Your task to perform on an android device: Open Google Maps and go to "Timeline" Image 0: 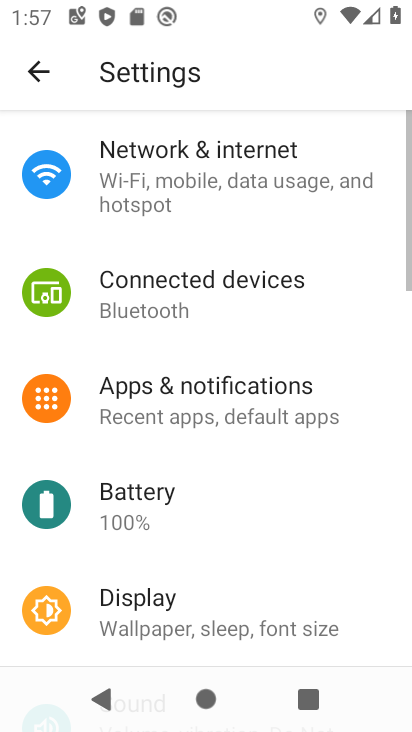
Step 0: press home button
Your task to perform on an android device: Open Google Maps and go to "Timeline" Image 1: 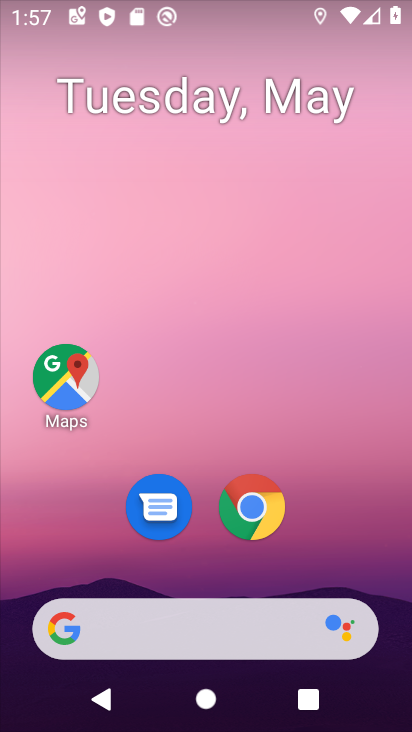
Step 1: click (62, 393)
Your task to perform on an android device: Open Google Maps and go to "Timeline" Image 2: 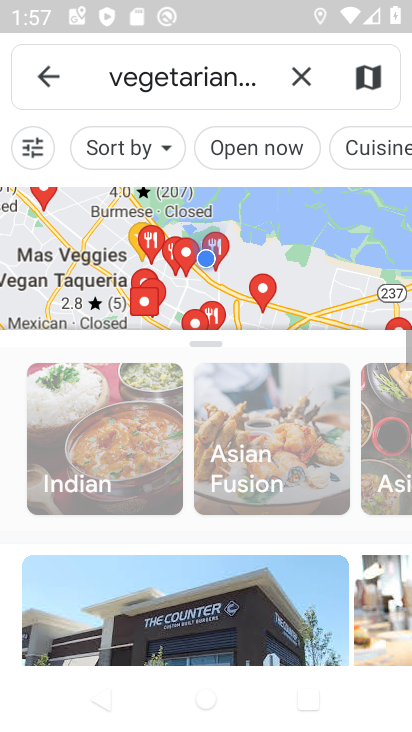
Step 2: click (46, 81)
Your task to perform on an android device: Open Google Maps and go to "Timeline" Image 3: 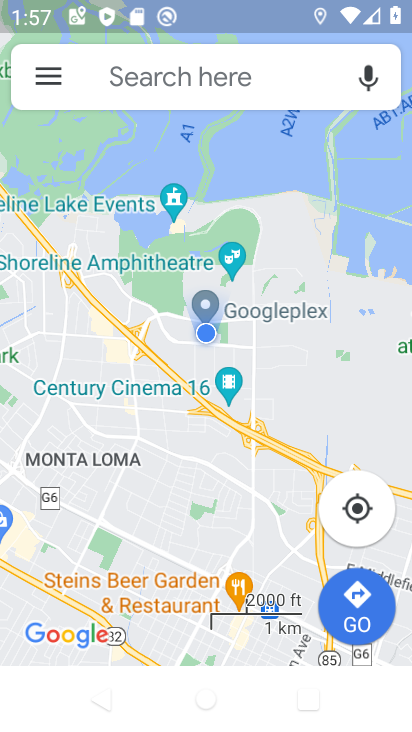
Step 3: click (46, 81)
Your task to perform on an android device: Open Google Maps and go to "Timeline" Image 4: 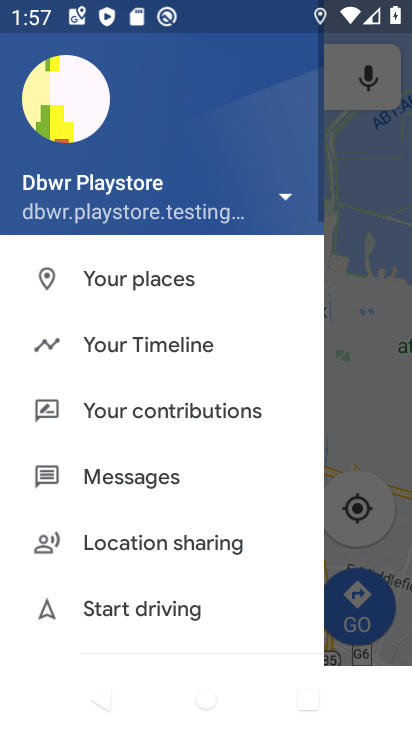
Step 4: click (102, 344)
Your task to perform on an android device: Open Google Maps and go to "Timeline" Image 5: 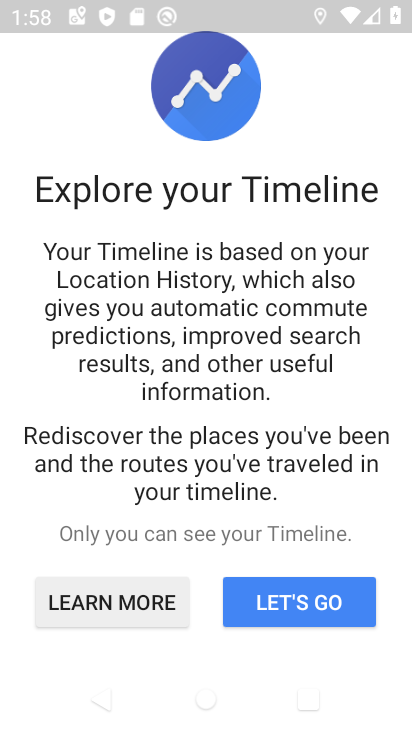
Step 5: drag from (179, 517) to (209, 292)
Your task to perform on an android device: Open Google Maps and go to "Timeline" Image 6: 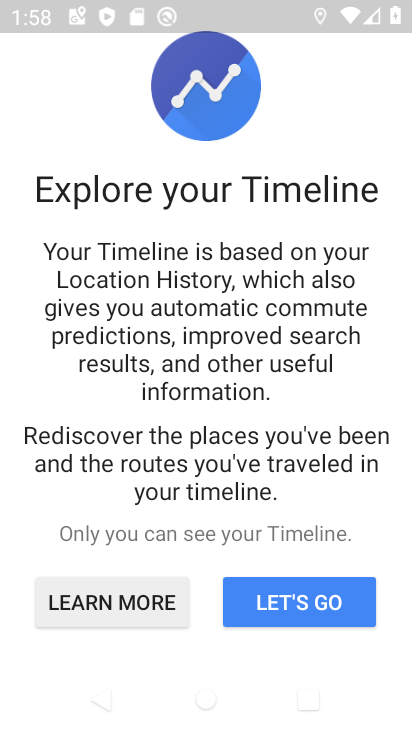
Step 6: click (273, 597)
Your task to perform on an android device: Open Google Maps and go to "Timeline" Image 7: 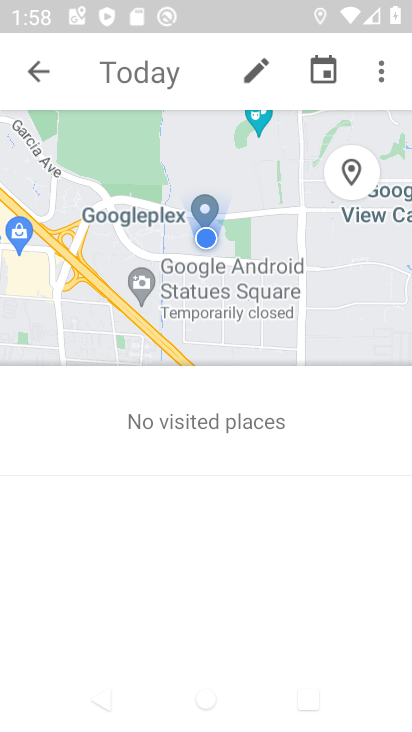
Step 7: task complete